Your task to perform on an android device: Open the map Image 0: 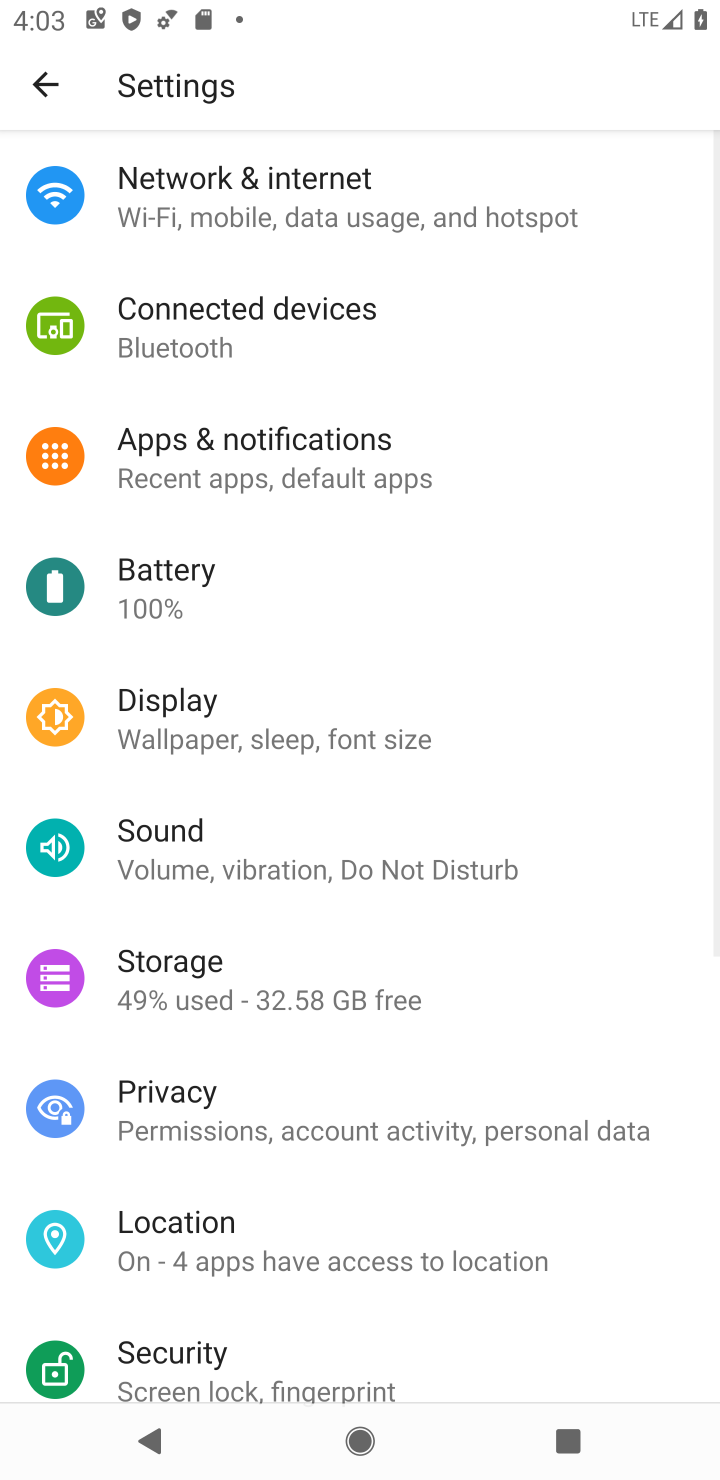
Step 0: press home button
Your task to perform on an android device: Open the map Image 1: 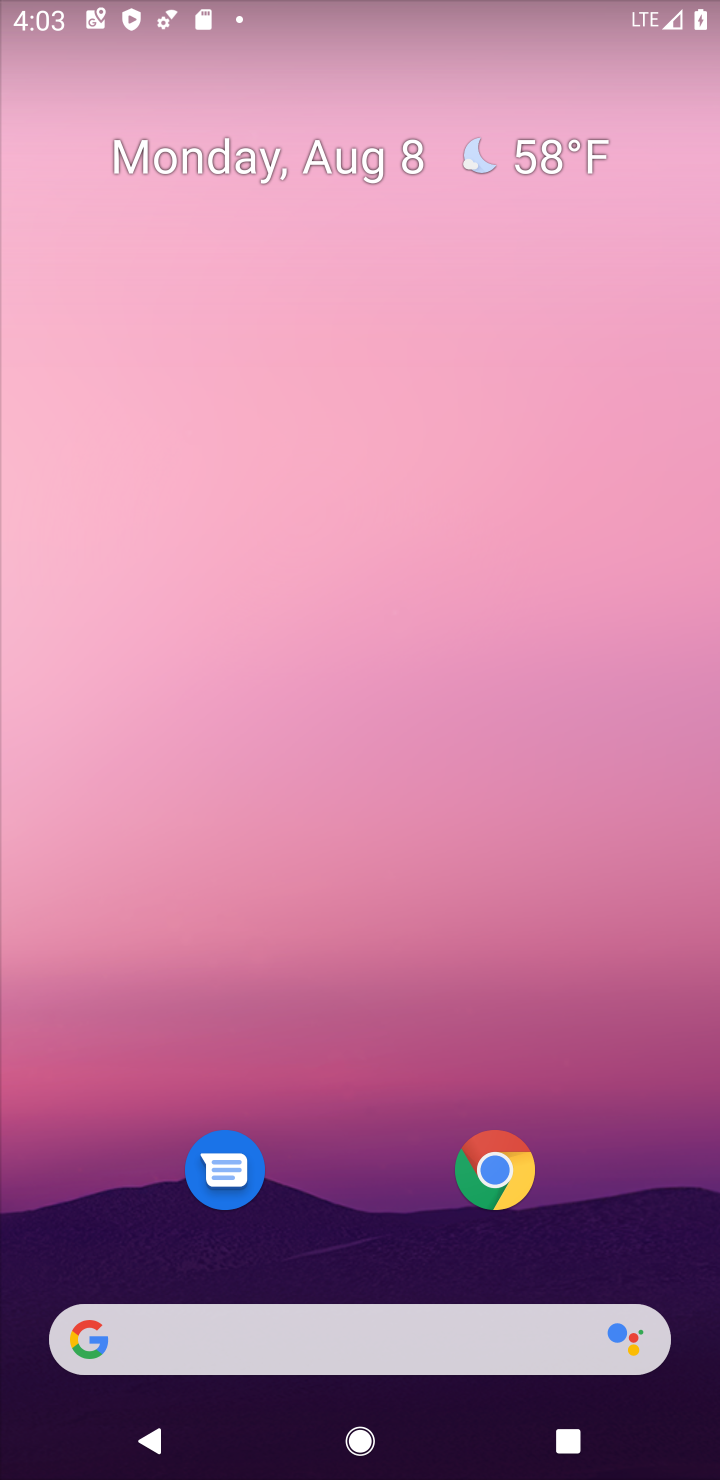
Step 1: drag from (372, 1063) to (372, 397)
Your task to perform on an android device: Open the map Image 2: 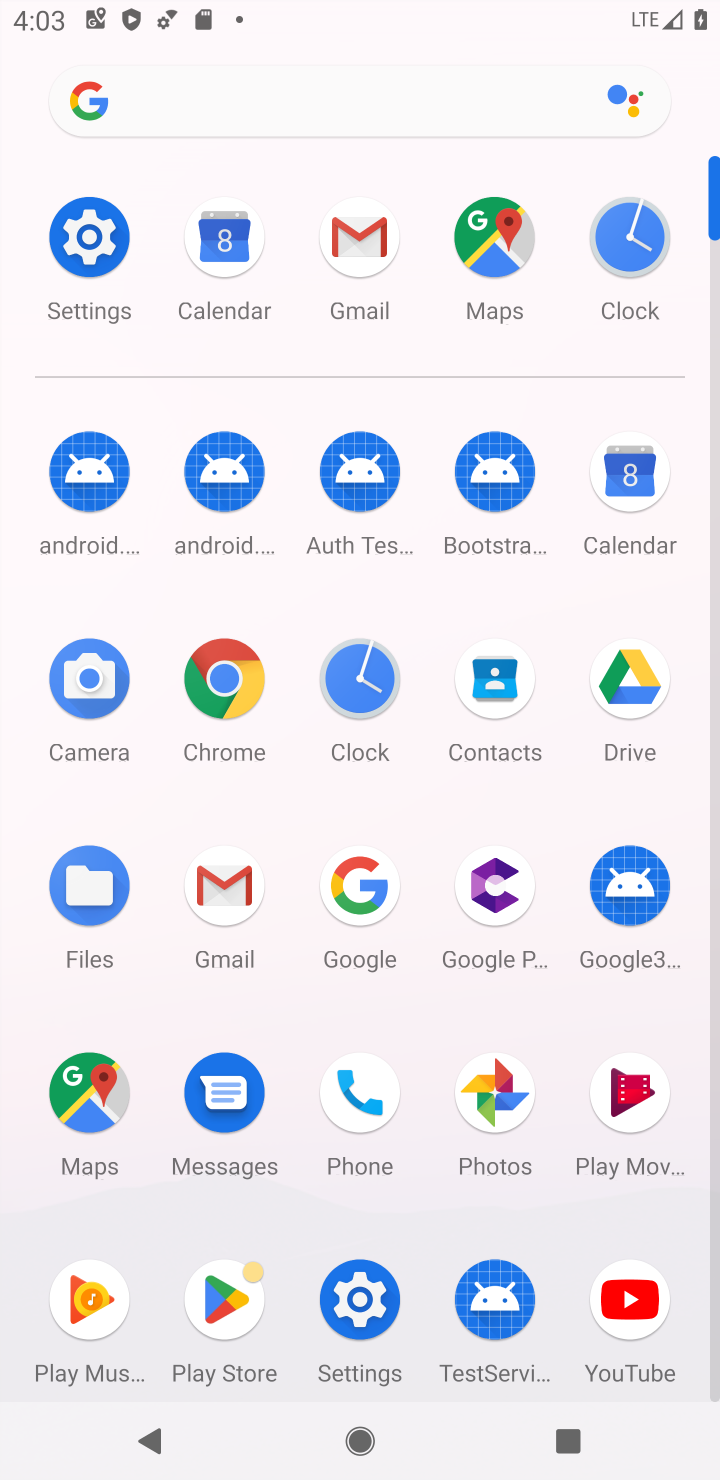
Step 2: click (475, 266)
Your task to perform on an android device: Open the map Image 3: 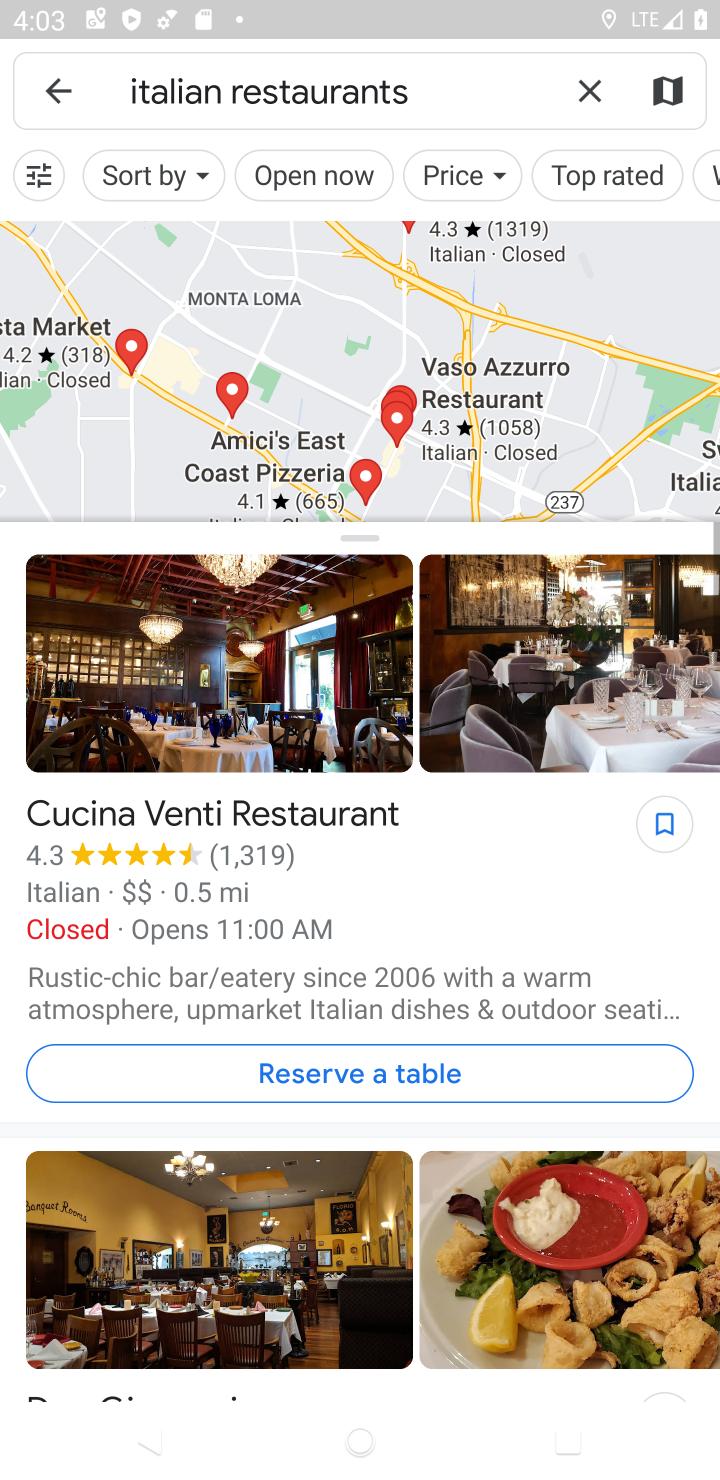
Step 3: task complete